Your task to perform on an android device: visit the assistant section in the google photos Image 0: 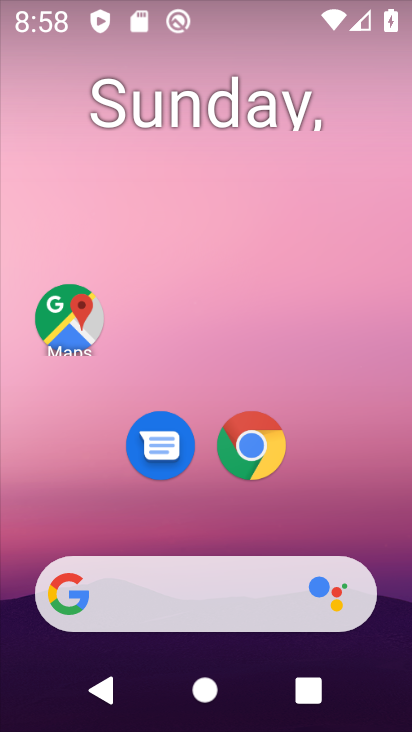
Step 0: drag from (401, 598) to (350, 56)
Your task to perform on an android device: visit the assistant section in the google photos Image 1: 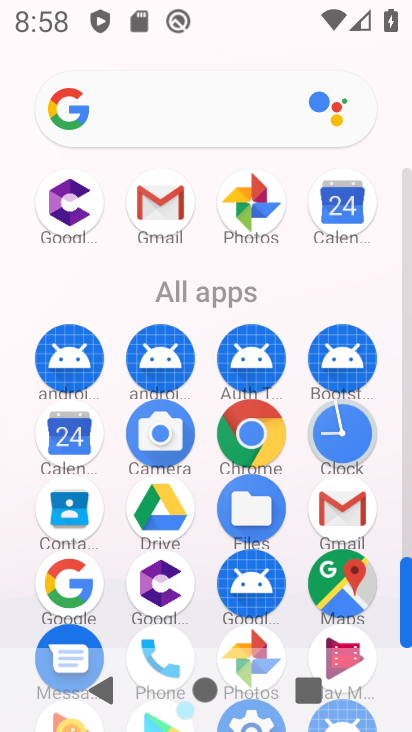
Step 1: drag from (405, 538) to (404, 475)
Your task to perform on an android device: visit the assistant section in the google photos Image 2: 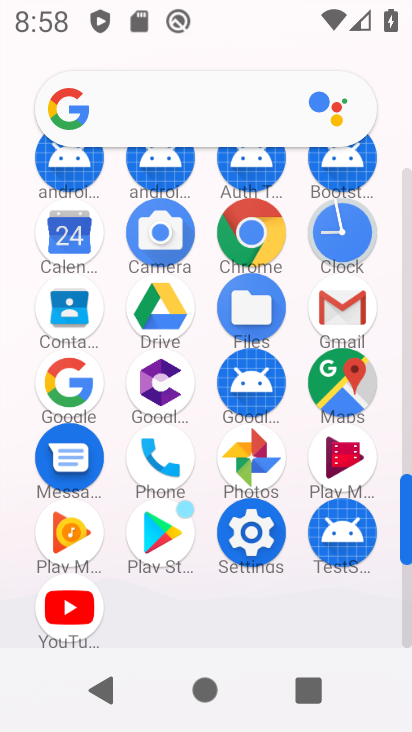
Step 2: click (249, 459)
Your task to perform on an android device: visit the assistant section in the google photos Image 3: 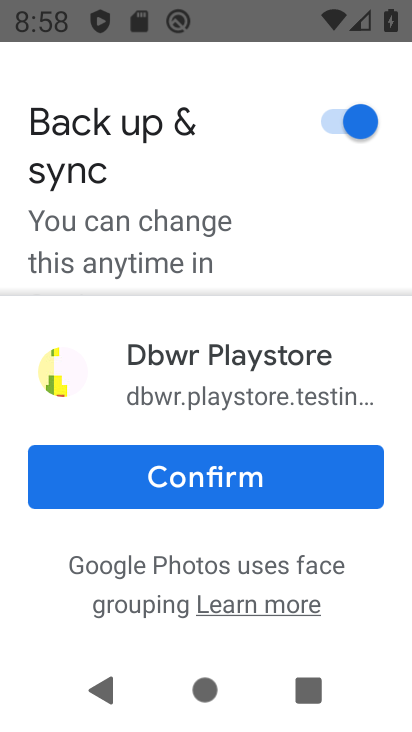
Step 3: click (204, 472)
Your task to perform on an android device: visit the assistant section in the google photos Image 4: 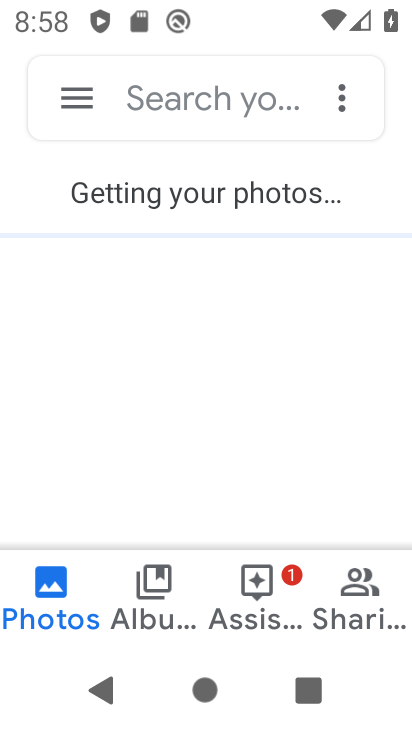
Step 4: click (250, 589)
Your task to perform on an android device: visit the assistant section in the google photos Image 5: 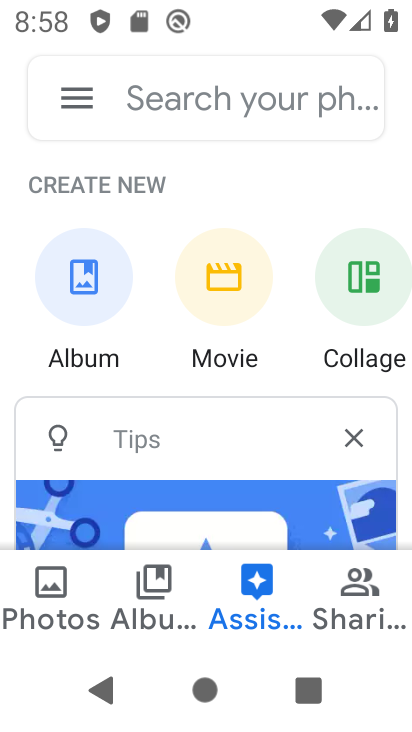
Step 5: task complete